Your task to perform on an android device: turn on the 12-hour format for clock Image 0: 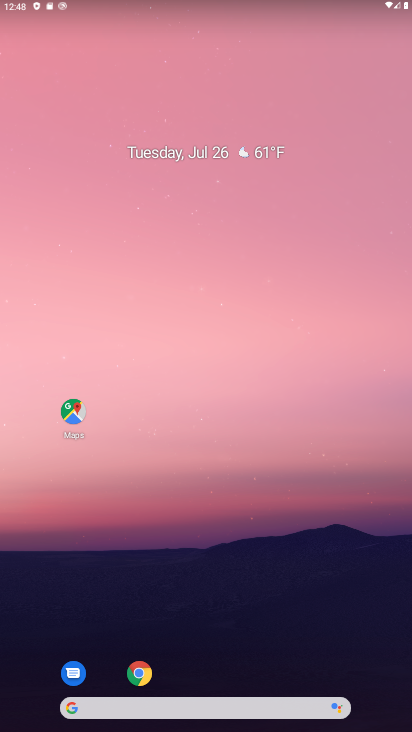
Step 0: drag from (190, 660) to (174, 195)
Your task to perform on an android device: turn on the 12-hour format for clock Image 1: 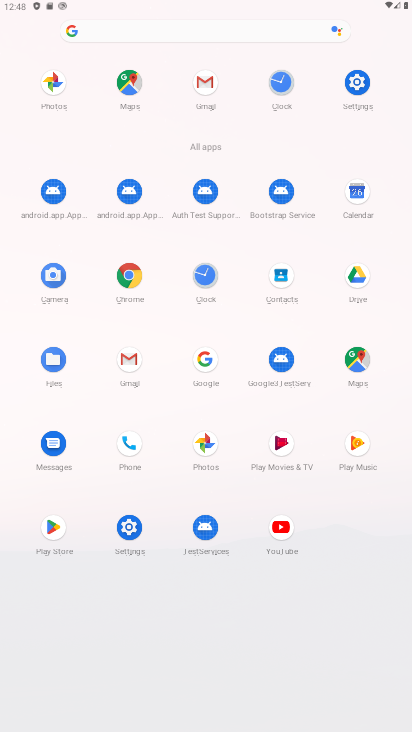
Step 1: click (130, 526)
Your task to perform on an android device: turn on the 12-hour format for clock Image 2: 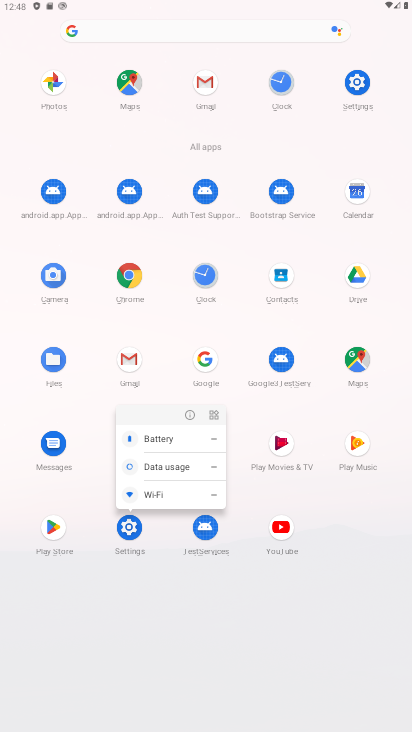
Step 2: click (202, 265)
Your task to perform on an android device: turn on the 12-hour format for clock Image 3: 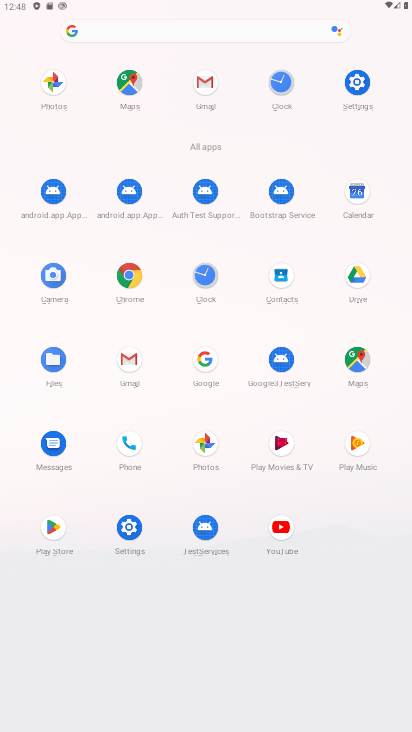
Step 3: click (205, 277)
Your task to perform on an android device: turn on the 12-hour format for clock Image 4: 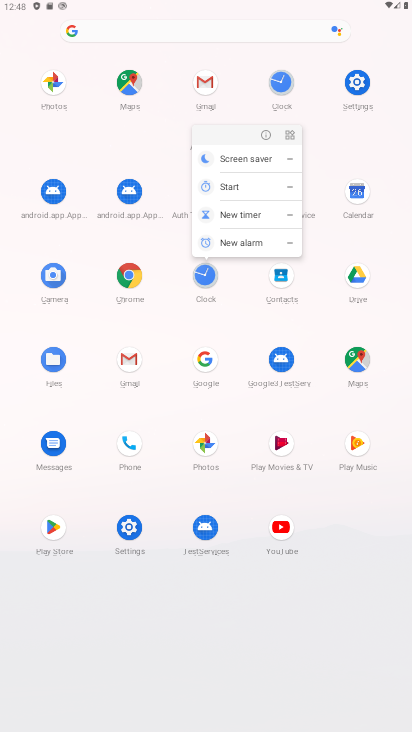
Step 4: click (271, 137)
Your task to perform on an android device: turn on the 12-hour format for clock Image 5: 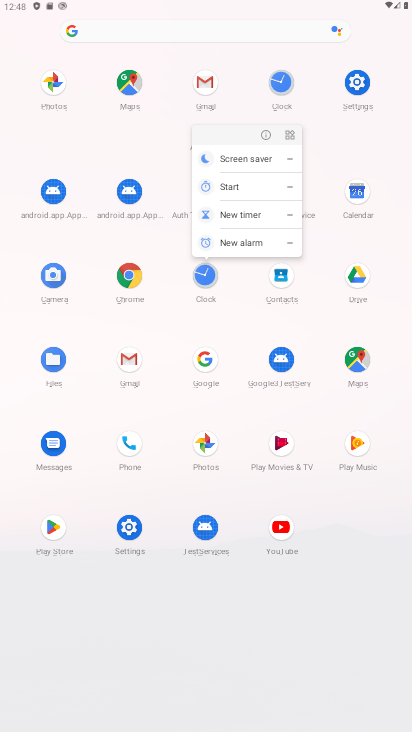
Step 5: click (270, 138)
Your task to perform on an android device: turn on the 12-hour format for clock Image 6: 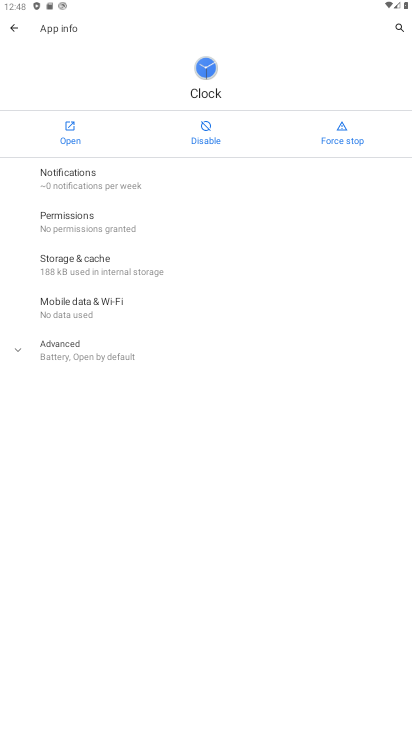
Step 6: click (65, 128)
Your task to perform on an android device: turn on the 12-hour format for clock Image 7: 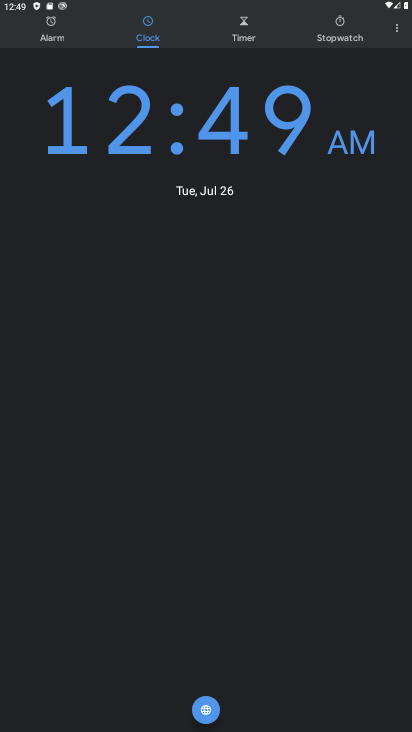
Step 7: drag from (400, 29) to (354, 56)
Your task to perform on an android device: turn on the 12-hour format for clock Image 8: 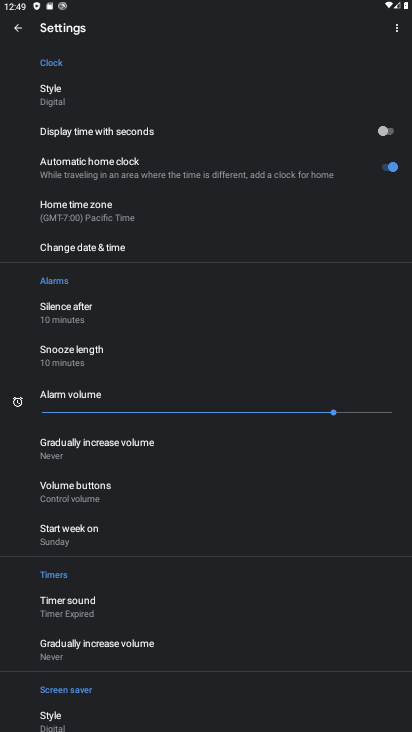
Step 8: click (151, 232)
Your task to perform on an android device: turn on the 12-hour format for clock Image 9: 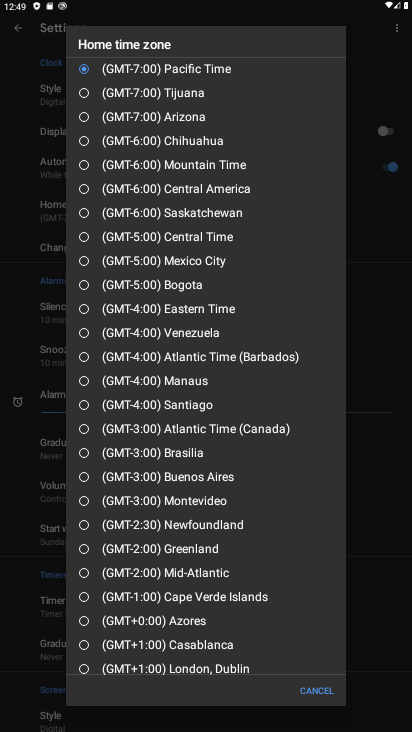
Step 9: press back button
Your task to perform on an android device: turn on the 12-hour format for clock Image 10: 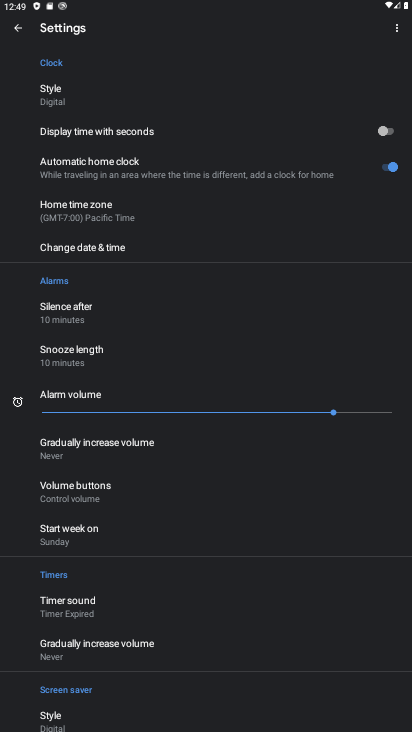
Step 10: click (188, 256)
Your task to perform on an android device: turn on the 12-hour format for clock Image 11: 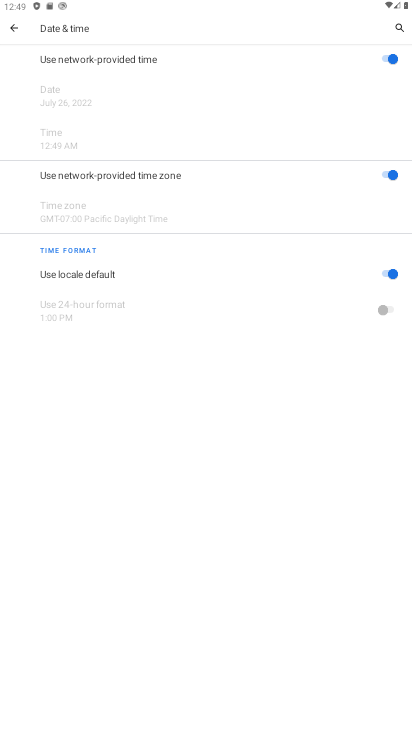
Step 11: task complete